Your task to perform on an android device: turn on showing notifications on the lock screen Image 0: 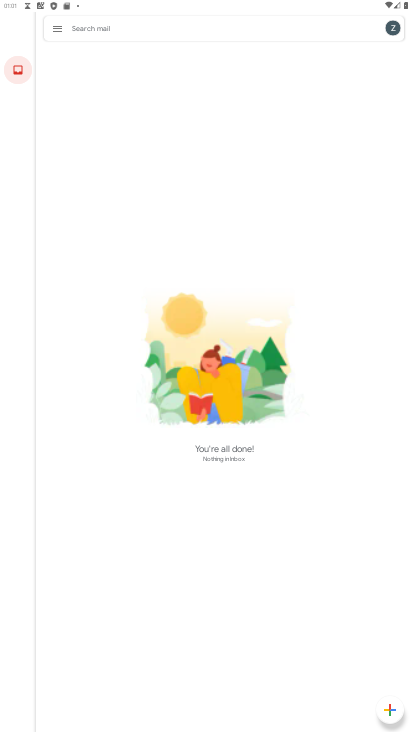
Step 0: press home button
Your task to perform on an android device: turn on showing notifications on the lock screen Image 1: 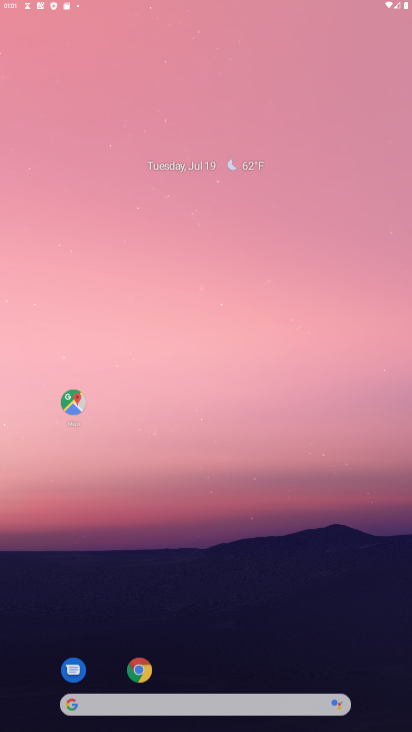
Step 1: drag from (304, 668) to (306, 421)
Your task to perform on an android device: turn on showing notifications on the lock screen Image 2: 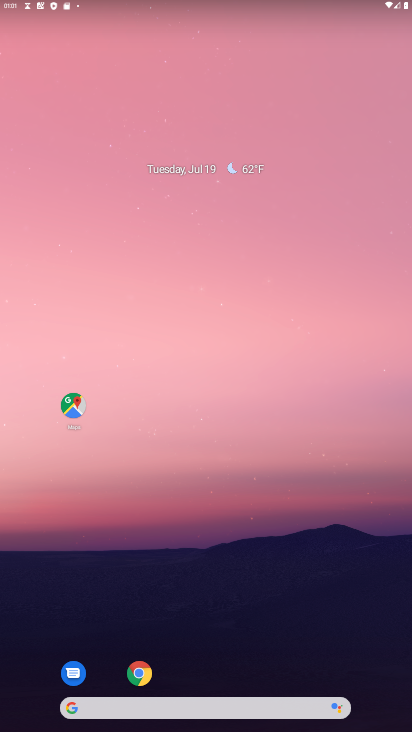
Step 2: drag from (216, 258) to (216, 224)
Your task to perform on an android device: turn on showing notifications on the lock screen Image 3: 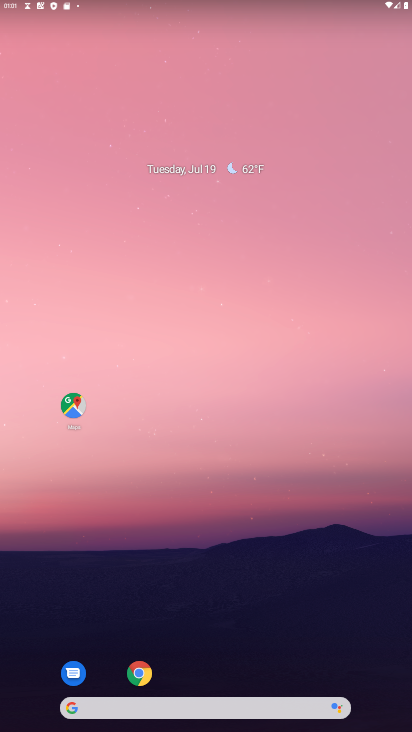
Step 3: drag from (254, 674) to (252, 264)
Your task to perform on an android device: turn on showing notifications on the lock screen Image 4: 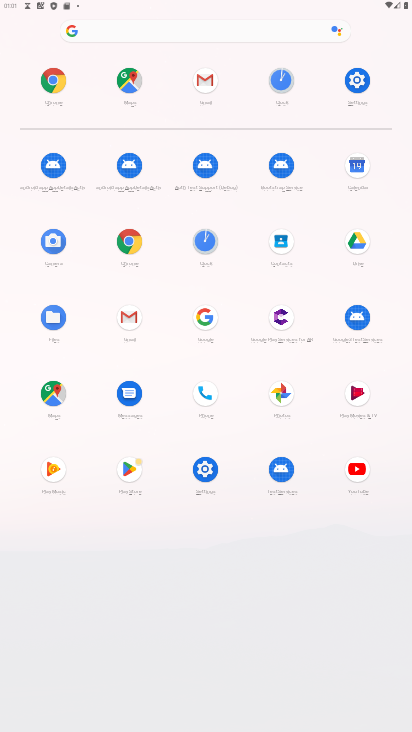
Step 4: click (361, 78)
Your task to perform on an android device: turn on showing notifications on the lock screen Image 5: 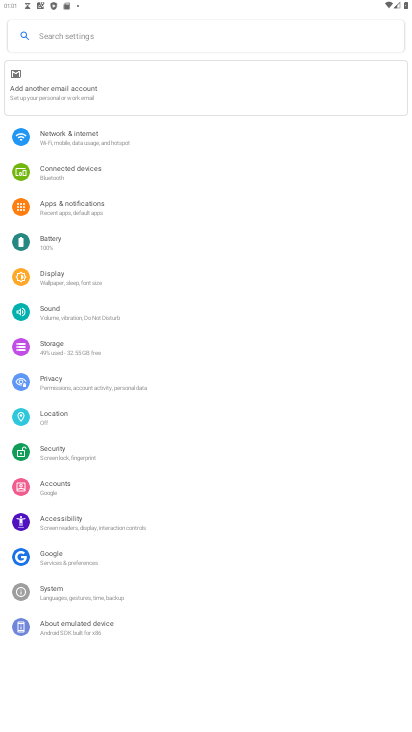
Step 5: click (70, 210)
Your task to perform on an android device: turn on showing notifications on the lock screen Image 6: 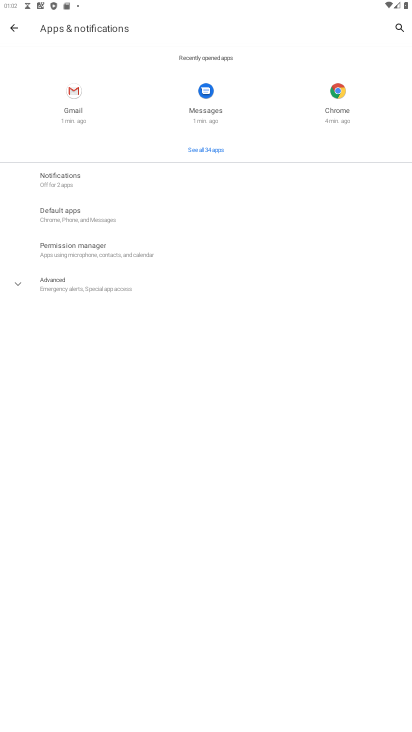
Step 6: click (70, 185)
Your task to perform on an android device: turn on showing notifications on the lock screen Image 7: 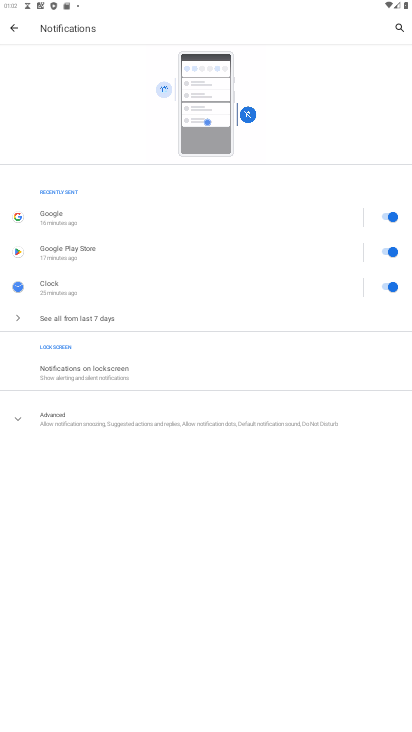
Step 7: click (124, 357)
Your task to perform on an android device: turn on showing notifications on the lock screen Image 8: 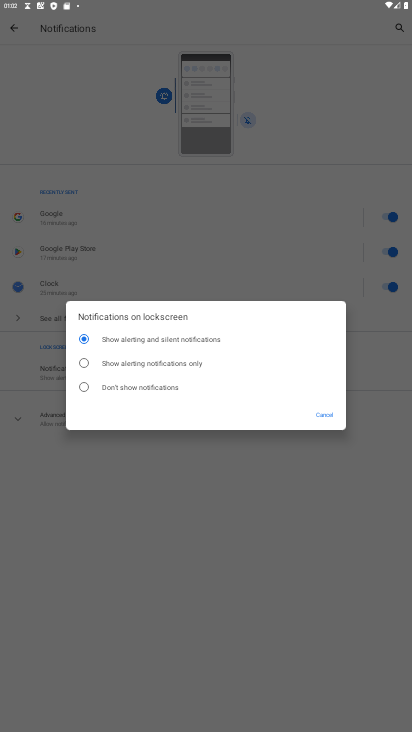
Step 8: task complete